Your task to perform on an android device: Go to Google Image 0: 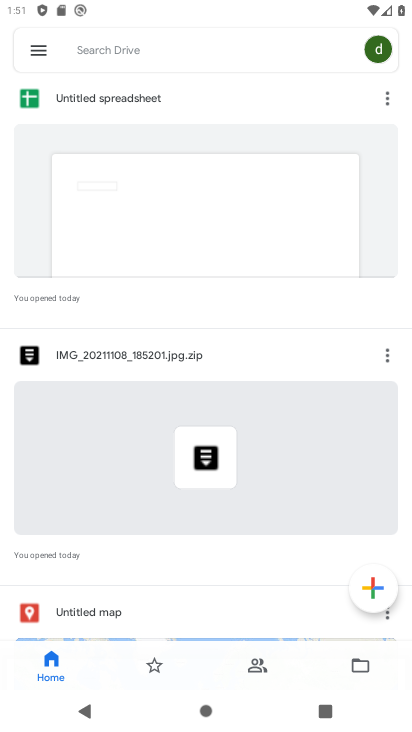
Step 0: press home button
Your task to perform on an android device: Go to Google Image 1: 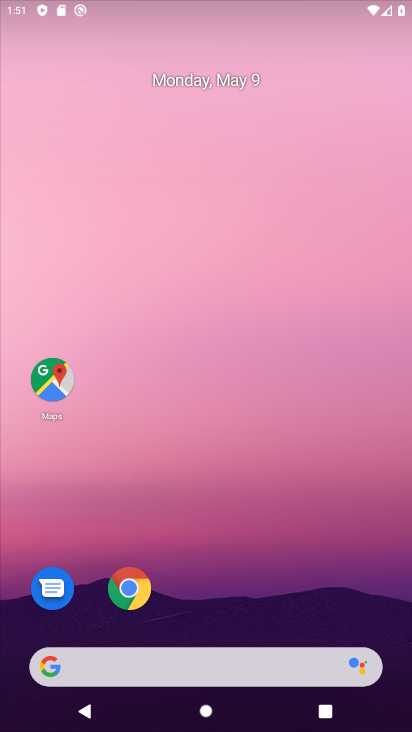
Step 1: drag from (312, 602) to (269, 56)
Your task to perform on an android device: Go to Google Image 2: 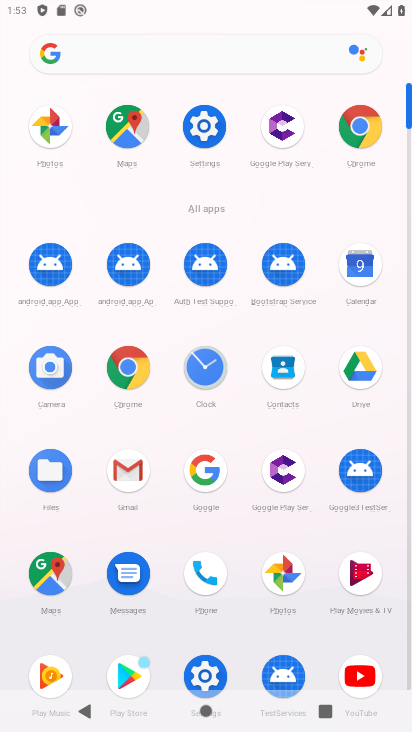
Step 2: click (216, 469)
Your task to perform on an android device: Go to Google Image 3: 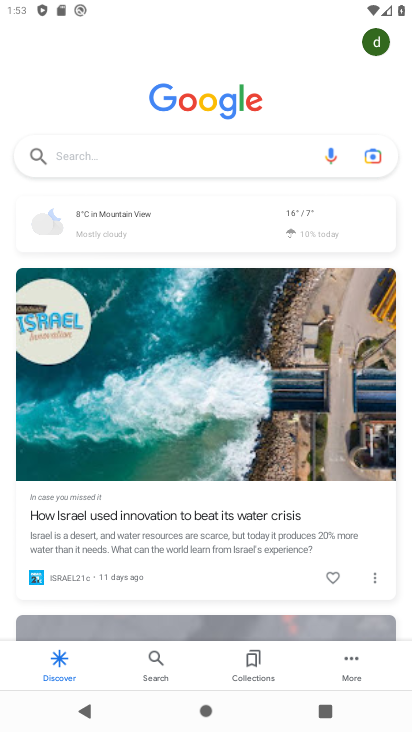
Step 3: task complete